Your task to perform on an android device: What's the weather going to be tomorrow? Image 0: 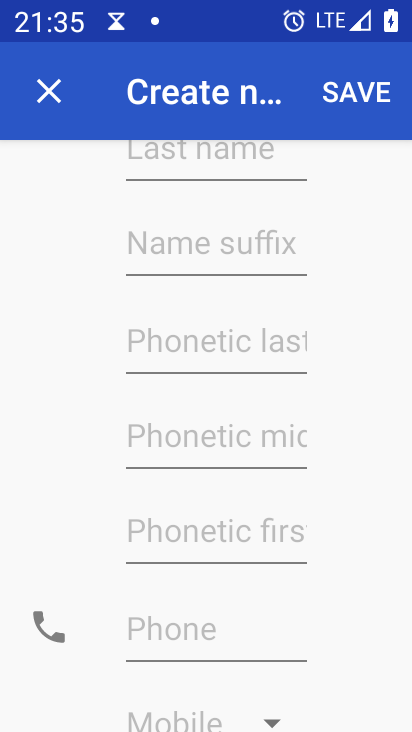
Step 0: press home button
Your task to perform on an android device: What's the weather going to be tomorrow? Image 1: 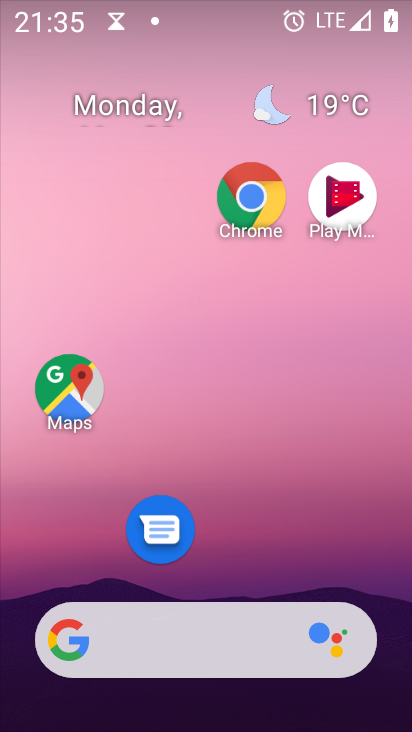
Step 1: drag from (222, 570) to (220, 190)
Your task to perform on an android device: What's the weather going to be tomorrow? Image 2: 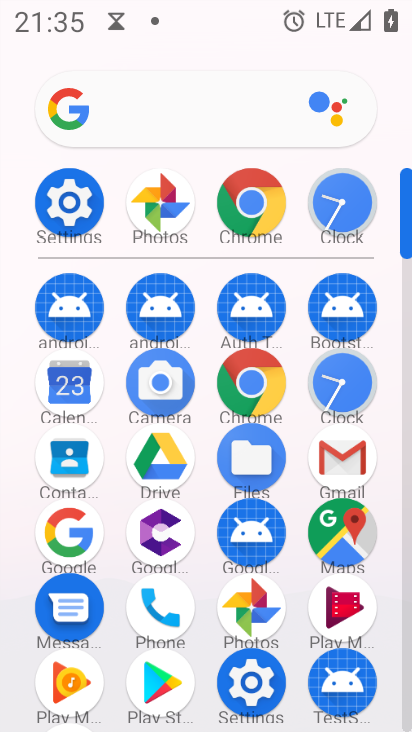
Step 2: click (46, 540)
Your task to perform on an android device: What's the weather going to be tomorrow? Image 3: 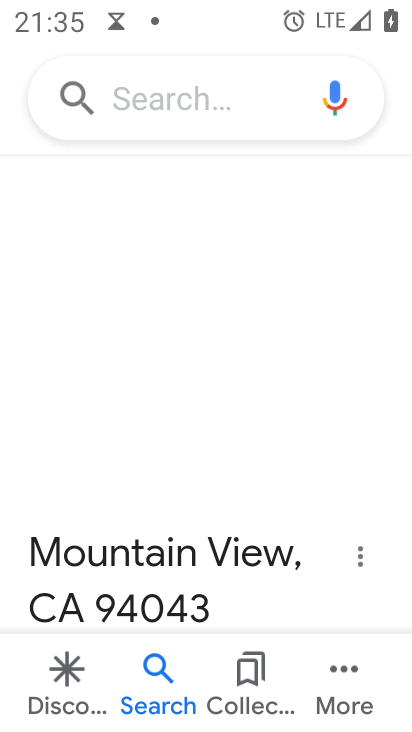
Step 3: drag from (161, 507) to (179, 196)
Your task to perform on an android device: What's the weather going to be tomorrow? Image 4: 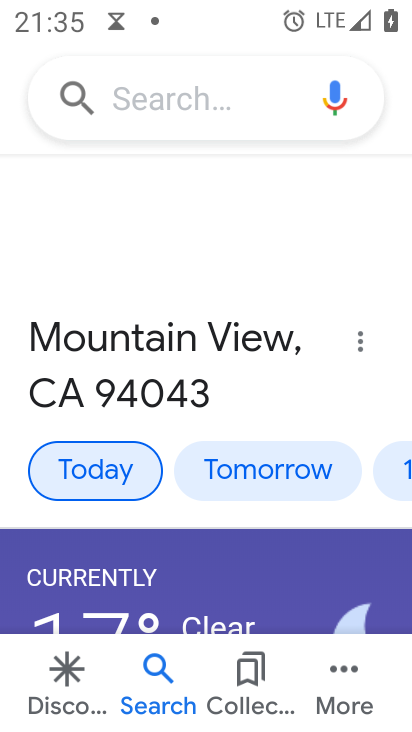
Step 4: drag from (222, 583) to (246, 311)
Your task to perform on an android device: What's the weather going to be tomorrow? Image 5: 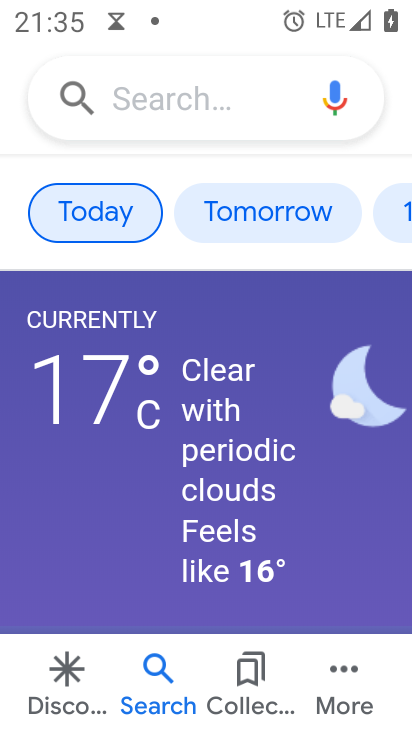
Step 5: click (265, 210)
Your task to perform on an android device: What's the weather going to be tomorrow? Image 6: 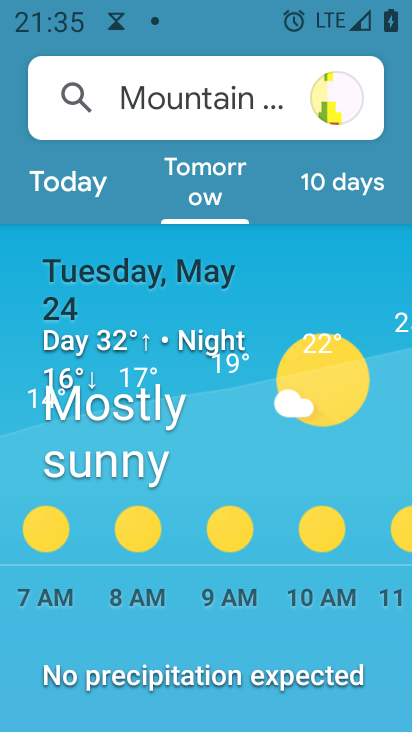
Step 6: task complete